Your task to perform on an android device: open app "Fetch Rewards" (install if not already installed) and enter user name: "Westwood@yahoo.com" and password: "qualifying" Image 0: 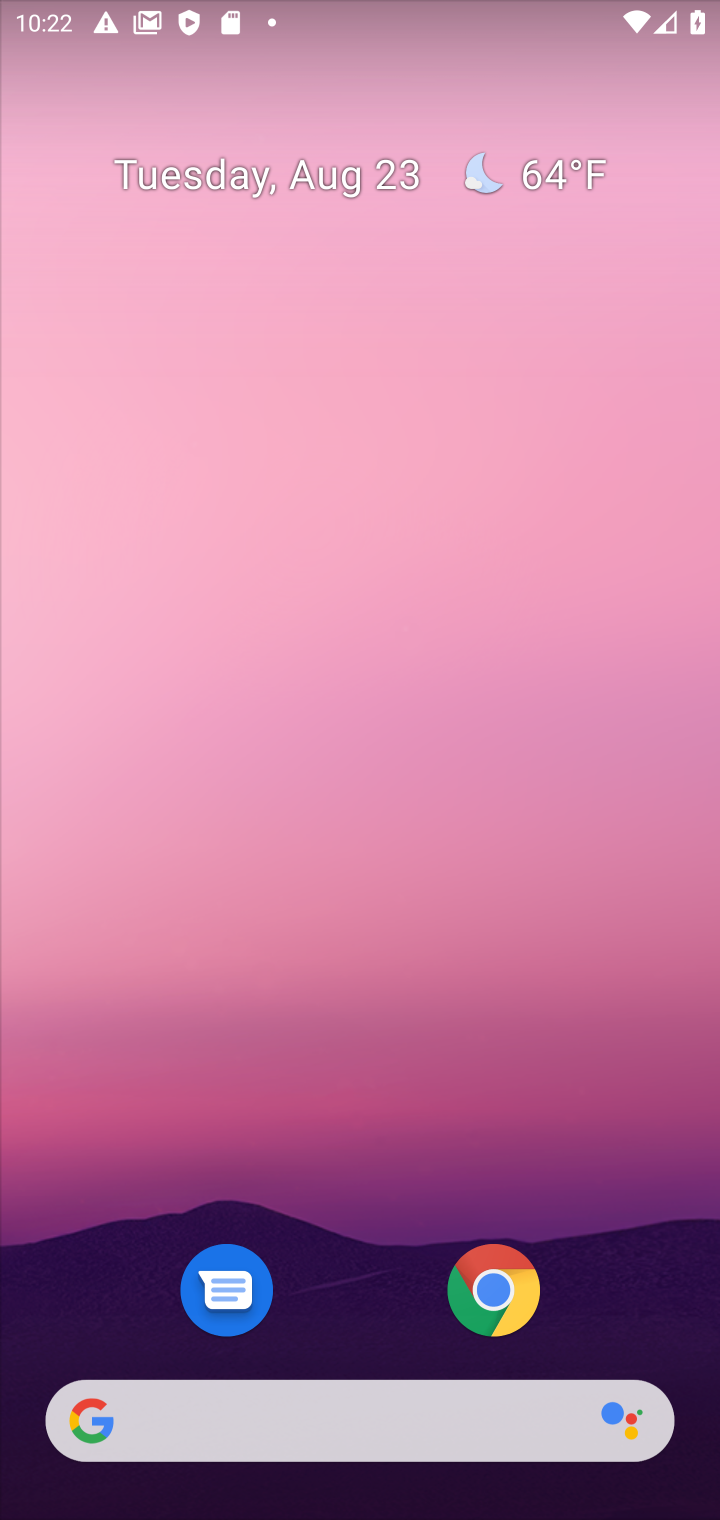
Step 0: drag from (398, 1109) to (392, 186)
Your task to perform on an android device: open app "Fetch Rewards" (install if not already installed) and enter user name: "Westwood@yahoo.com" and password: "qualifying" Image 1: 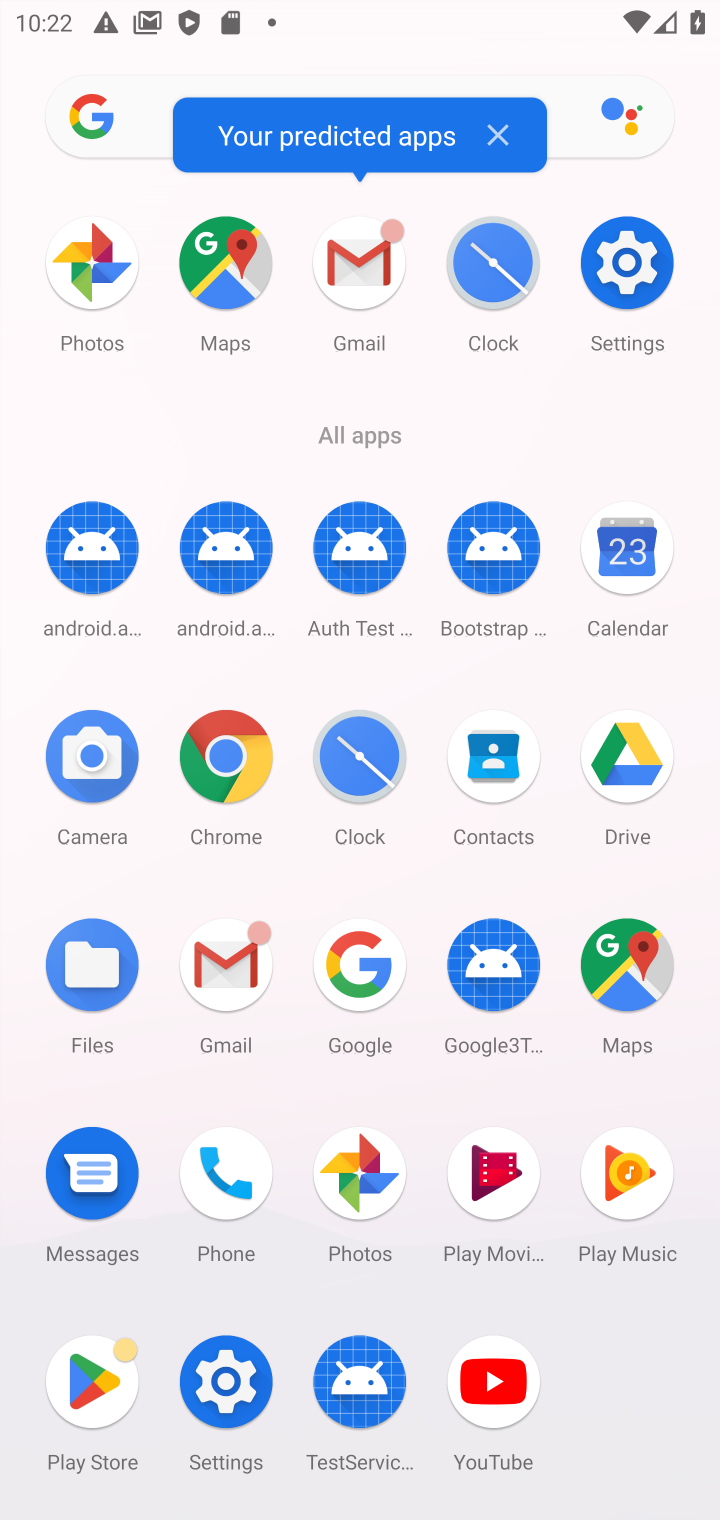
Step 1: click (95, 1375)
Your task to perform on an android device: open app "Fetch Rewards" (install if not already installed) and enter user name: "Westwood@yahoo.com" and password: "qualifying" Image 2: 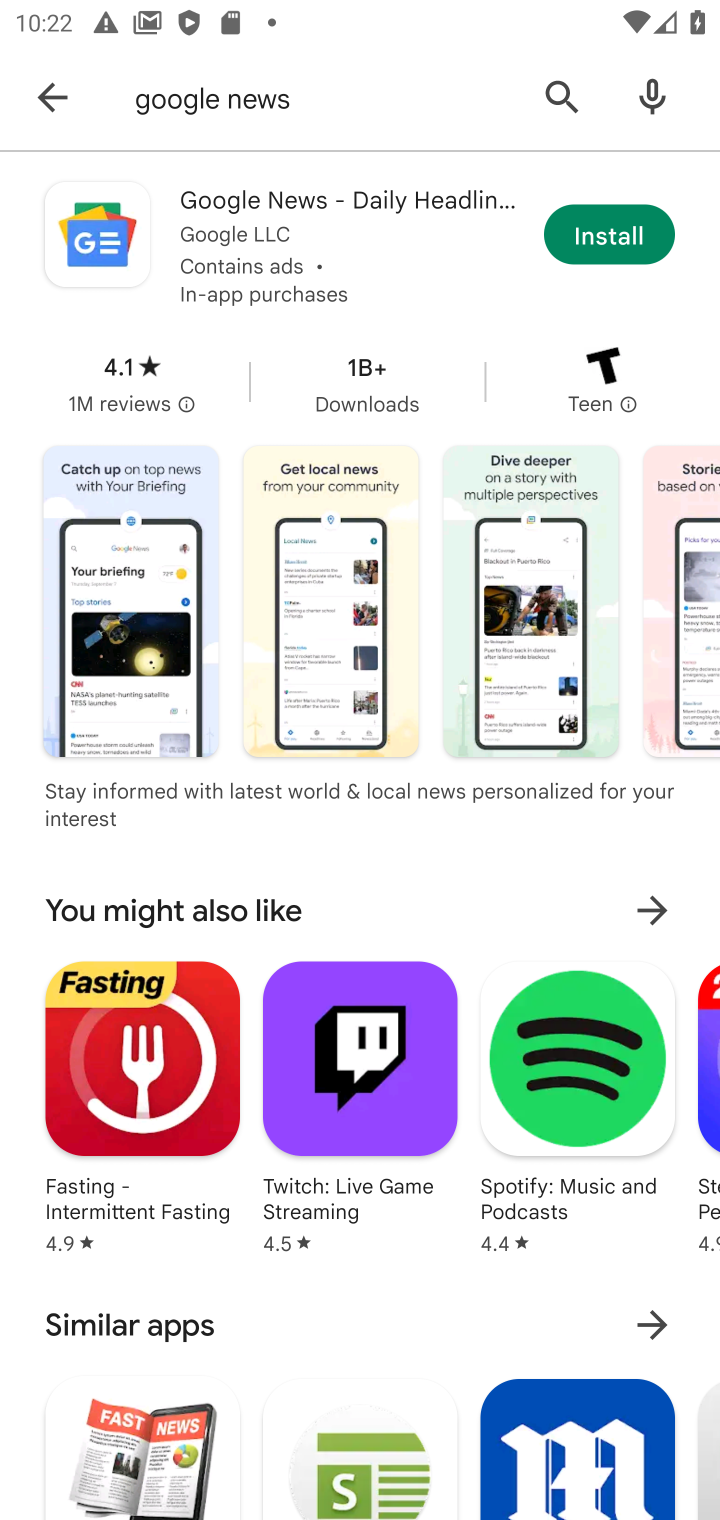
Step 2: click (551, 95)
Your task to perform on an android device: open app "Fetch Rewards" (install if not already installed) and enter user name: "Westwood@yahoo.com" and password: "qualifying" Image 3: 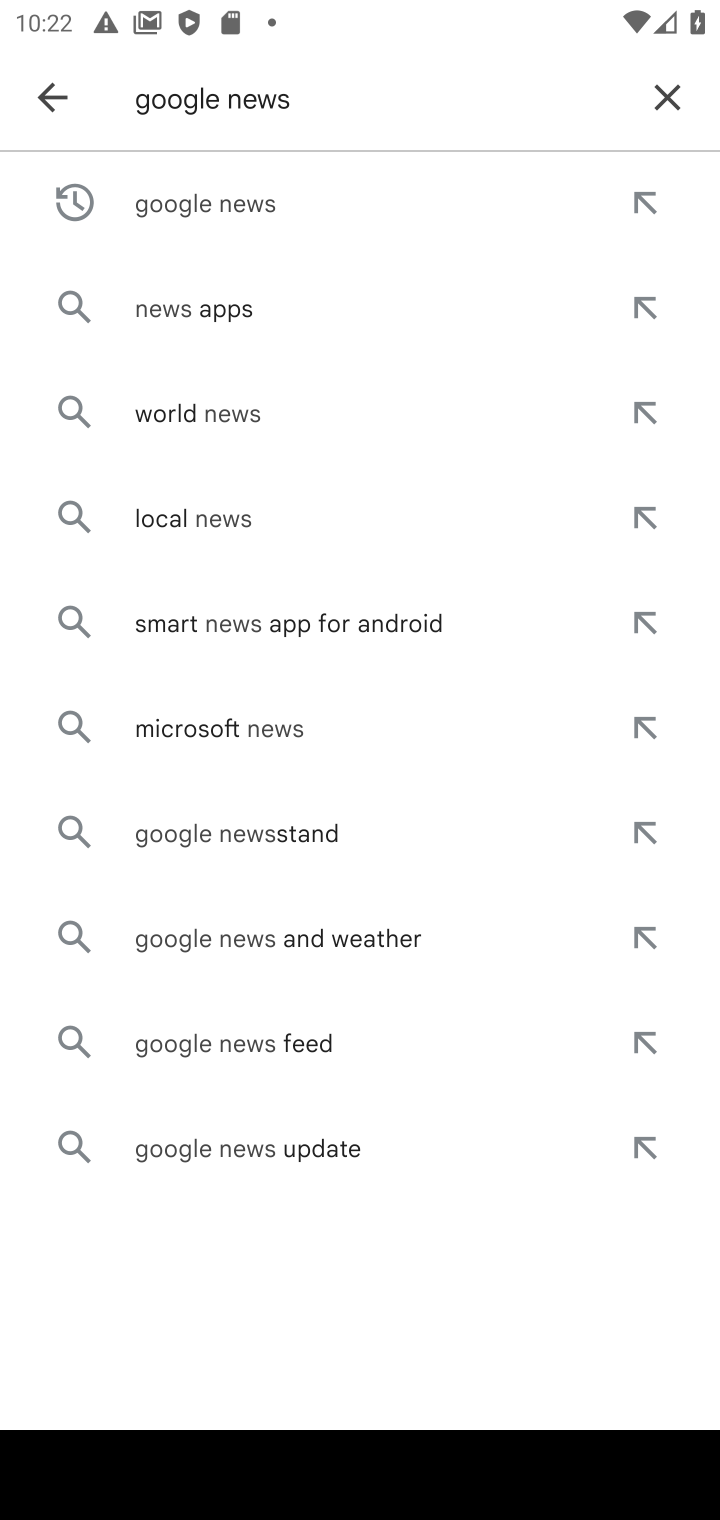
Step 3: click (676, 88)
Your task to perform on an android device: open app "Fetch Rewards" (install if not already installed) and enter user name: "Westwood@yahoo.com" and password: "qualifying" Image 4: 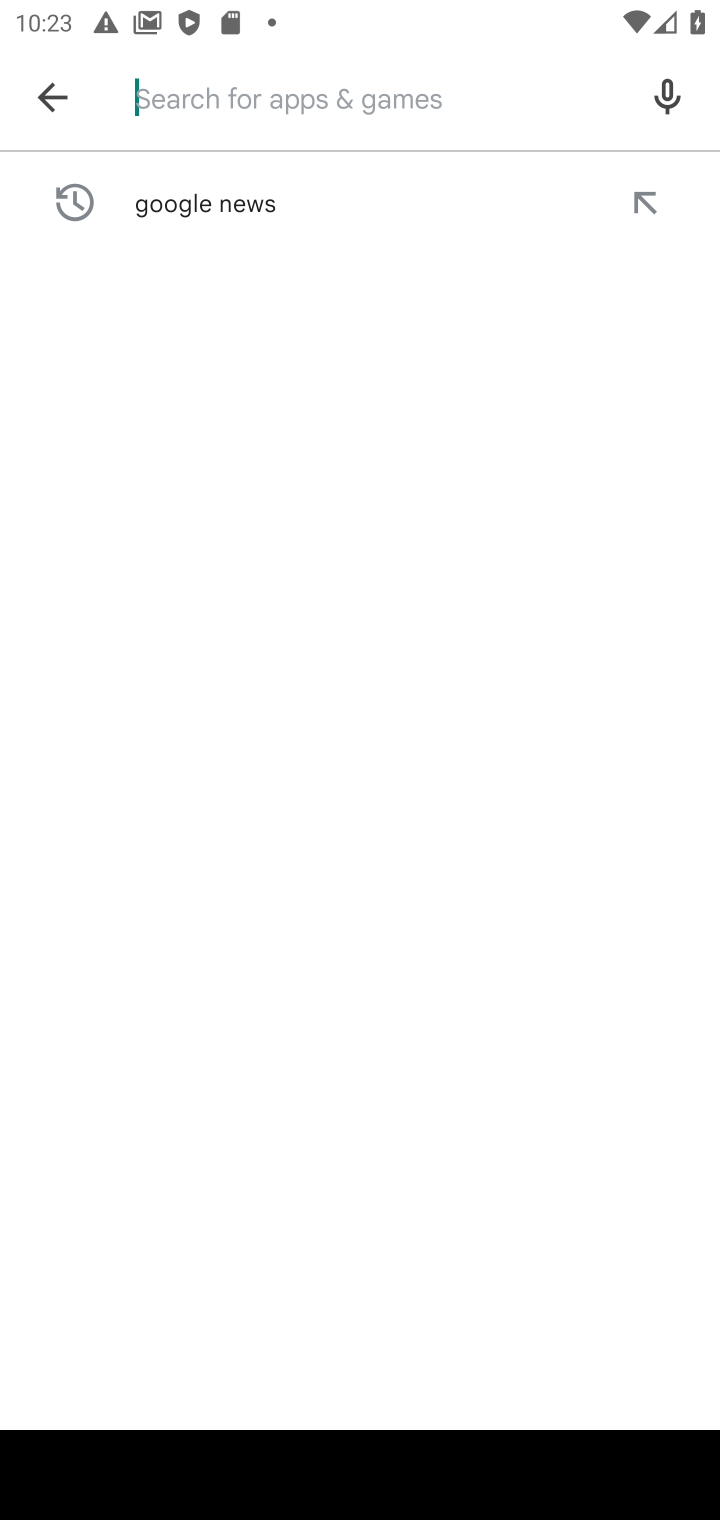
Step 4: type "Fetch Rewards"
Your task to perform on an android device: open app "Fetch Rewards" (install if not already installed) and enter user name: "Westwood@yahoo.com" and password: "qualifying" Image 5: 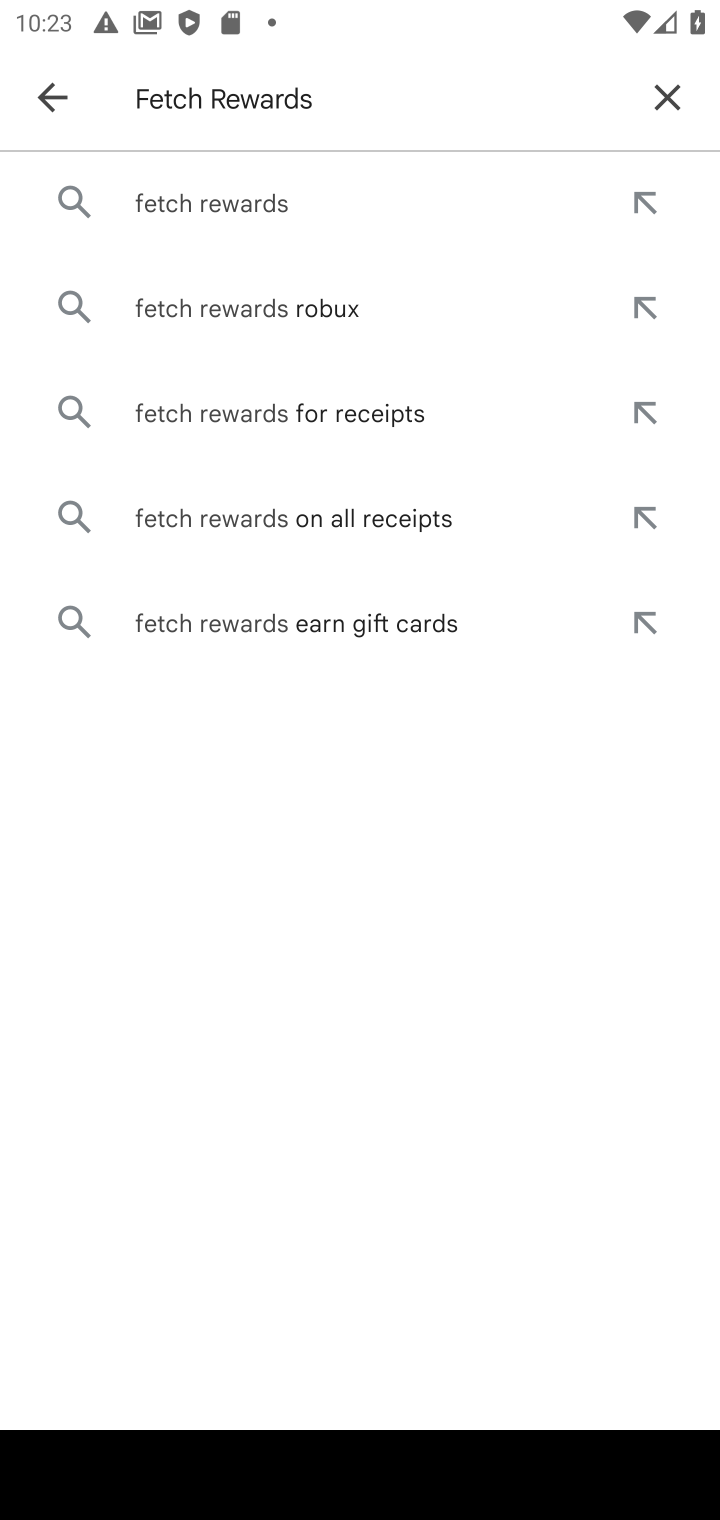
Step 5: click (226, 199)
Your task to perform on an android device: open app "Fetch Rewards" (install if not already installed) and enter user name: "Westwood@yahoo.com" and password: "qualifying" Image 6: 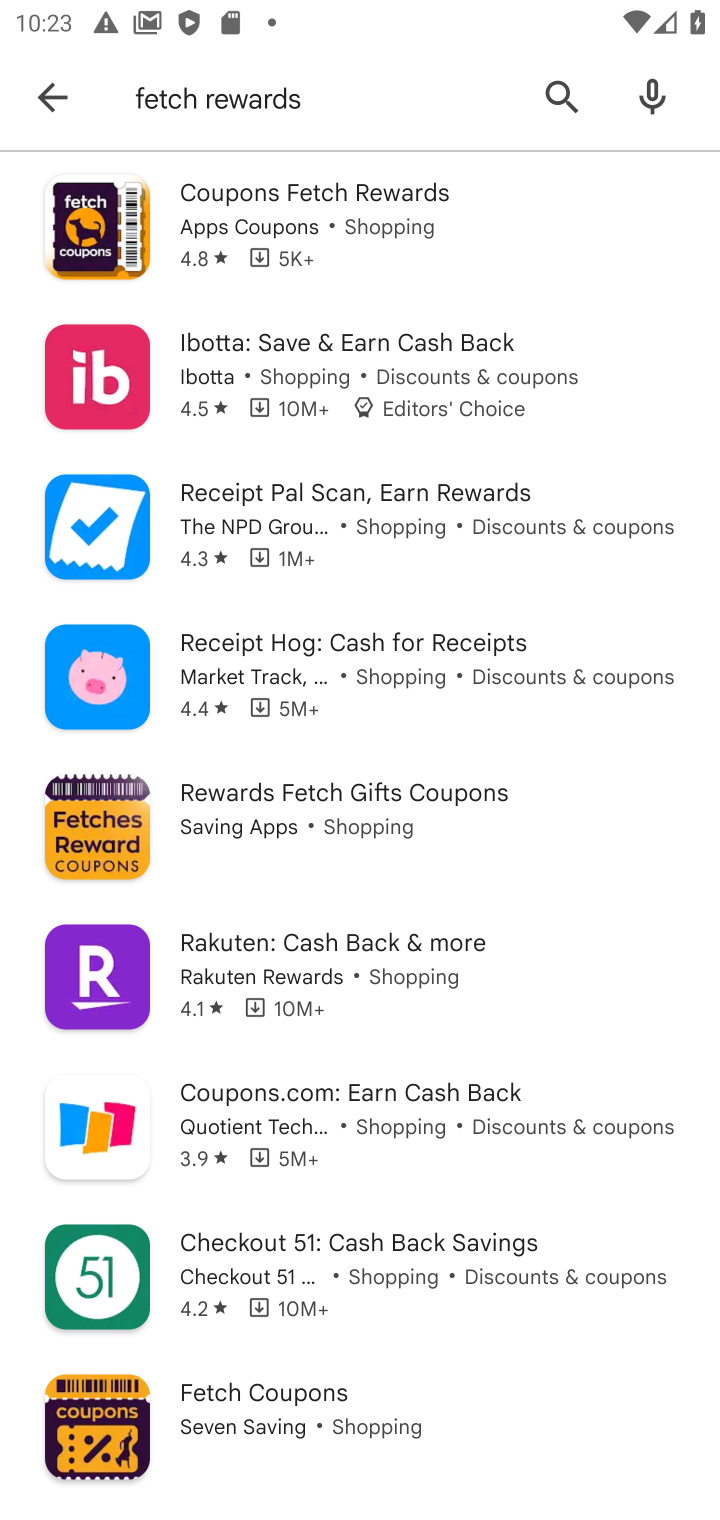
Step 6: task complete